Your task to perform on an android device: When is my next appointment? Image 0: 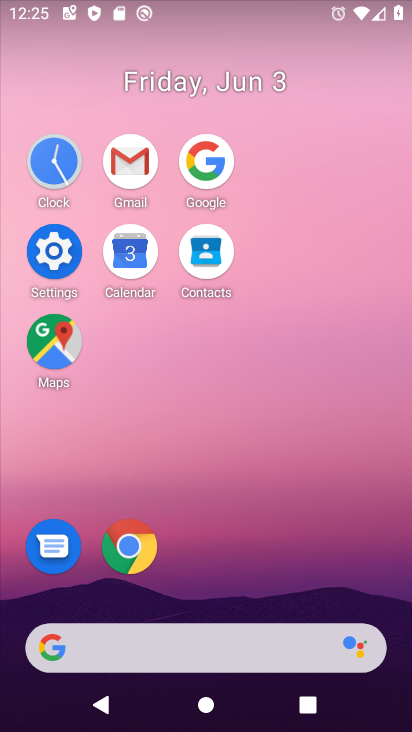
Step 0: click (142, 256)
Your task to perform on an android device: When is my next appointment? Image 1: 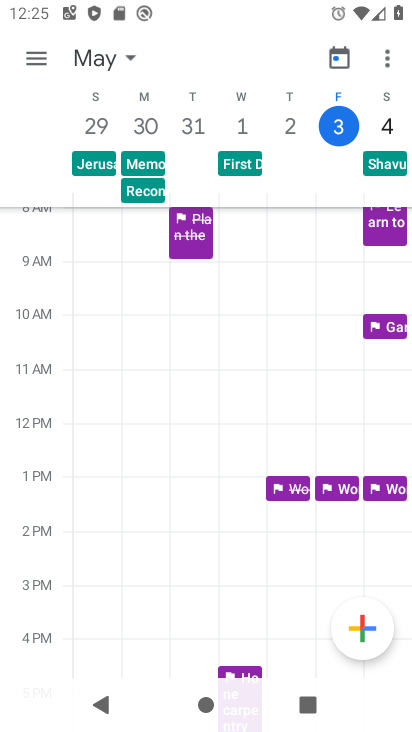
Step 1: click (387, 123)
Your task to perform on an android device: When is my next appointment? Image 2: 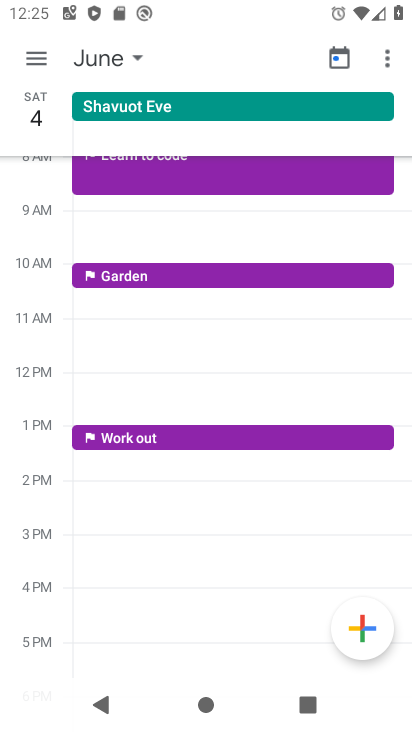
Step 2: task complete